Your task to perform on an android device: Go to Maps Image 0: 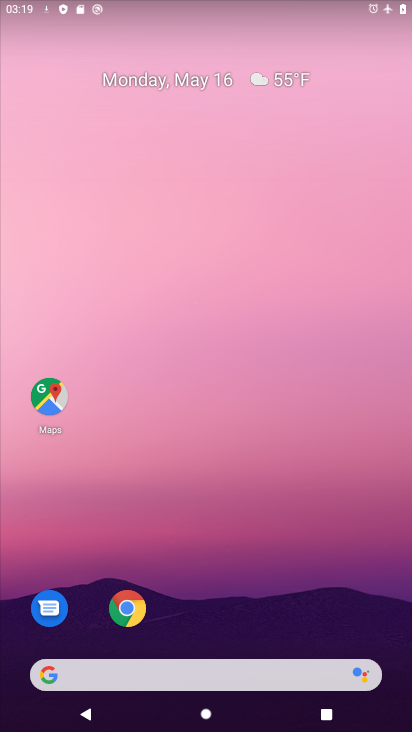
Step 0: click (50, 393)
Your task to perform on an android device: Go to Maps Image 1: 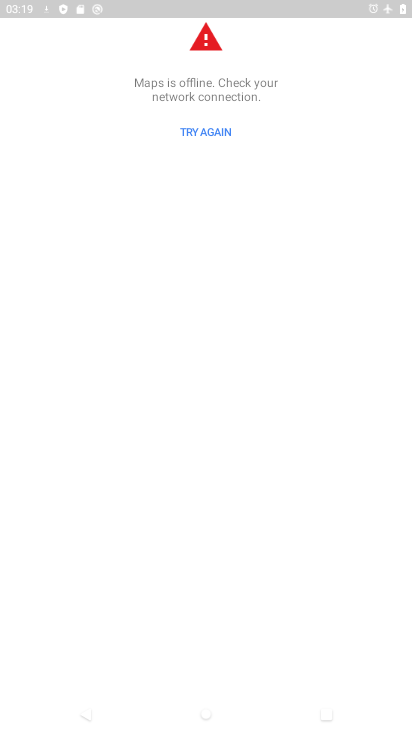
Step 1: task complete